Your task to perform on an android device: Search for panasonic triple a on bestbuy.com, select the first entry, add it to the cart, then select checkout. Image 0: 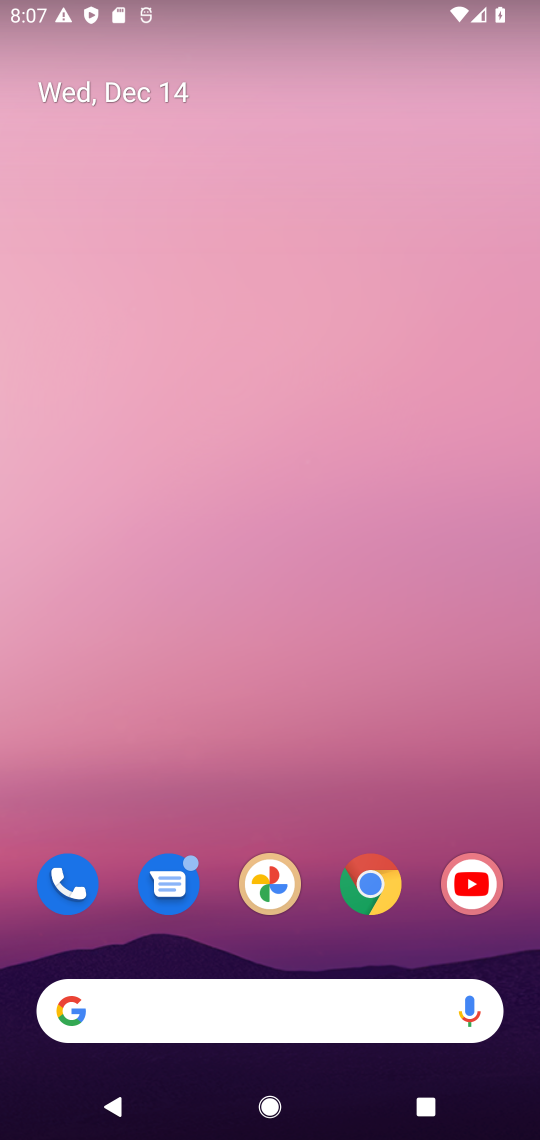
Step 0: click (363, 883)
Your task to perform on an android device: Search for panasonic triple a on bestbuy.com, select the first entry, add it to the cart, then select checkout. Image 1: 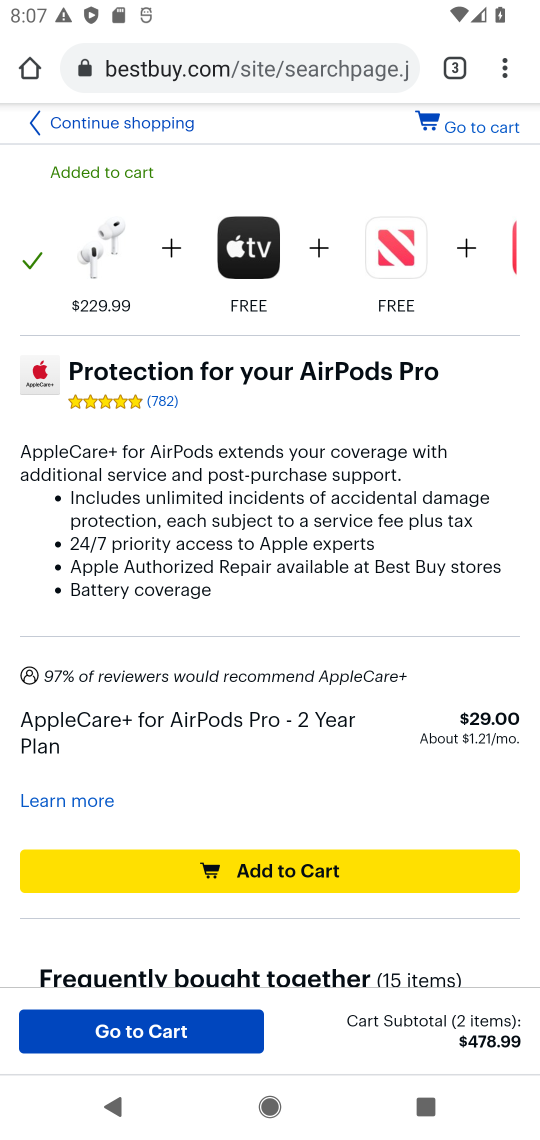
Step 1: click (124, 118)
Your task to perform on an android device: Search for panasonic triple a on bestbuy.com, select the first entry, add it to the cart, then select checkout. Image 2: 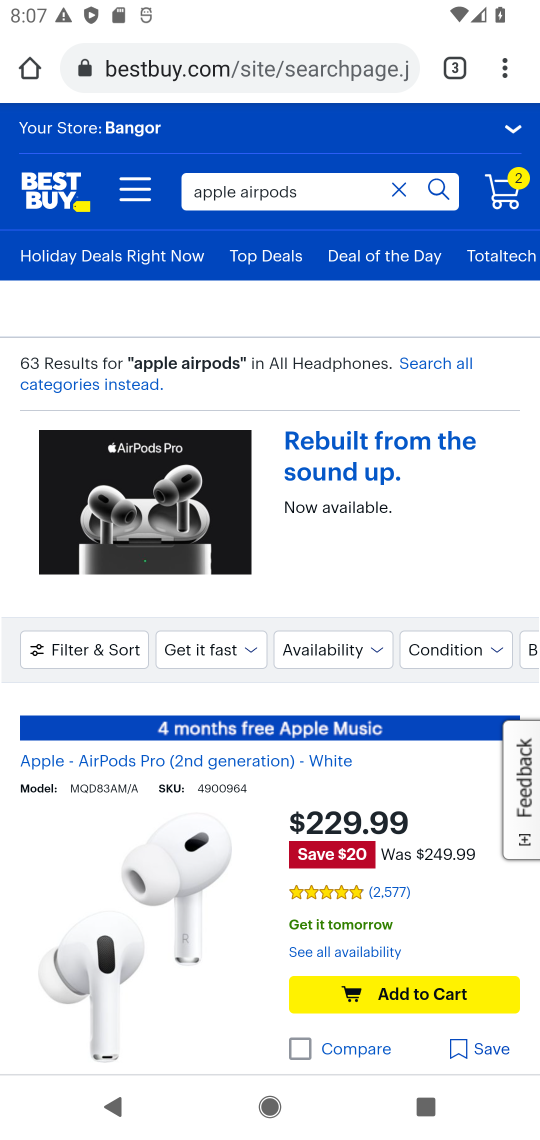
Step 2: click (397, 187)
Your task to perform on an android device: Search for panasonic triple a on bestbuy.com, select the first entry, add it to the cart, then select checkout. Image 3: 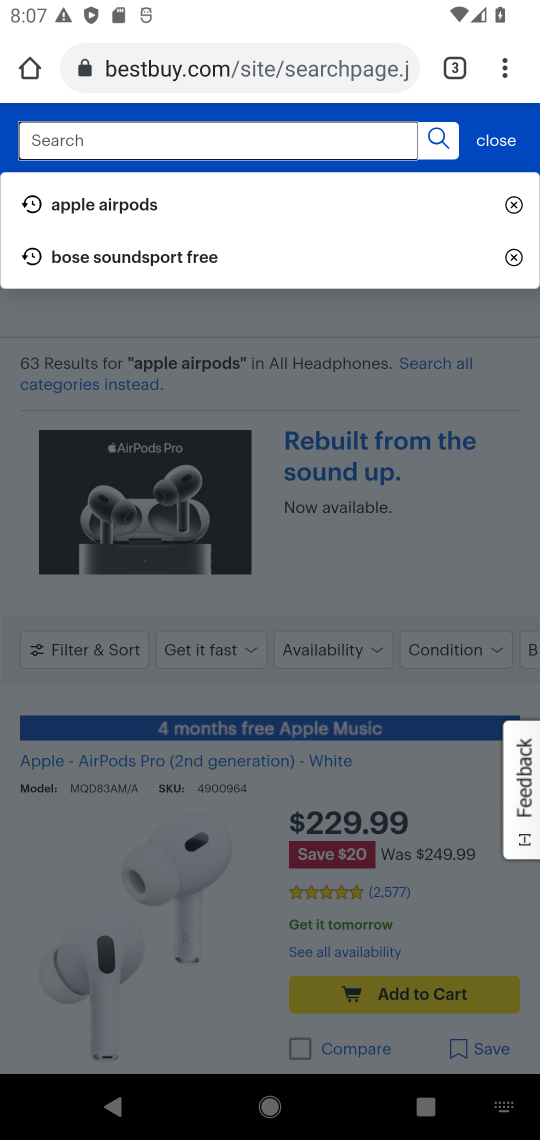
Step 3: type "panasonic triple a"
Your task to perform on an android device: Search for panasonic triple a on bestbuy.com, select the first entry, add it to the cart, then select checkout. Image 4: 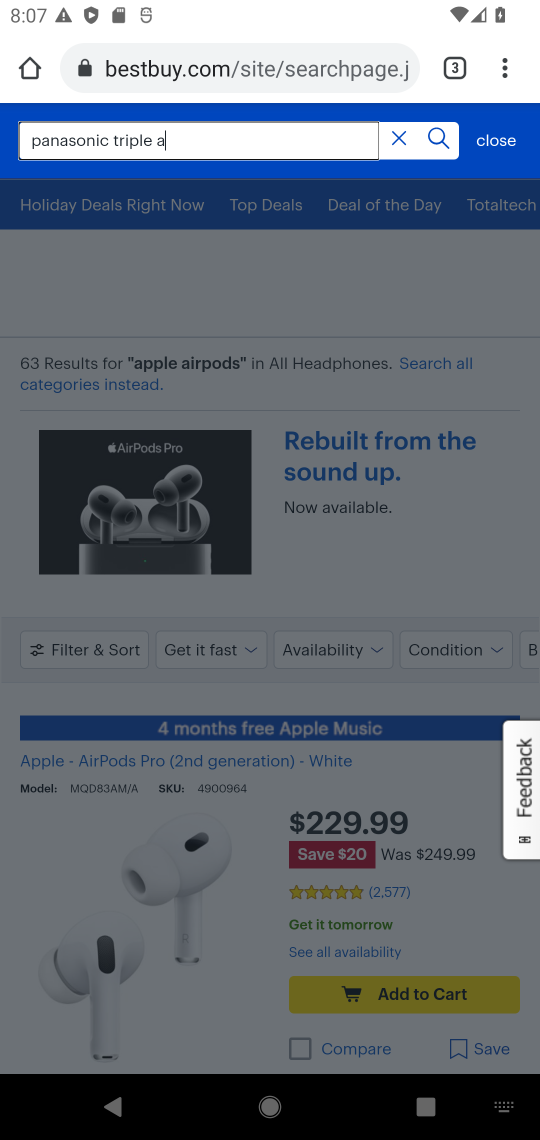
Step 4: click (439, 139)
Your task to perform on an android device: Search for panasonic triple a on bestbuy.com, select the first entry, add it to the cart, then select checkout. Image 5: 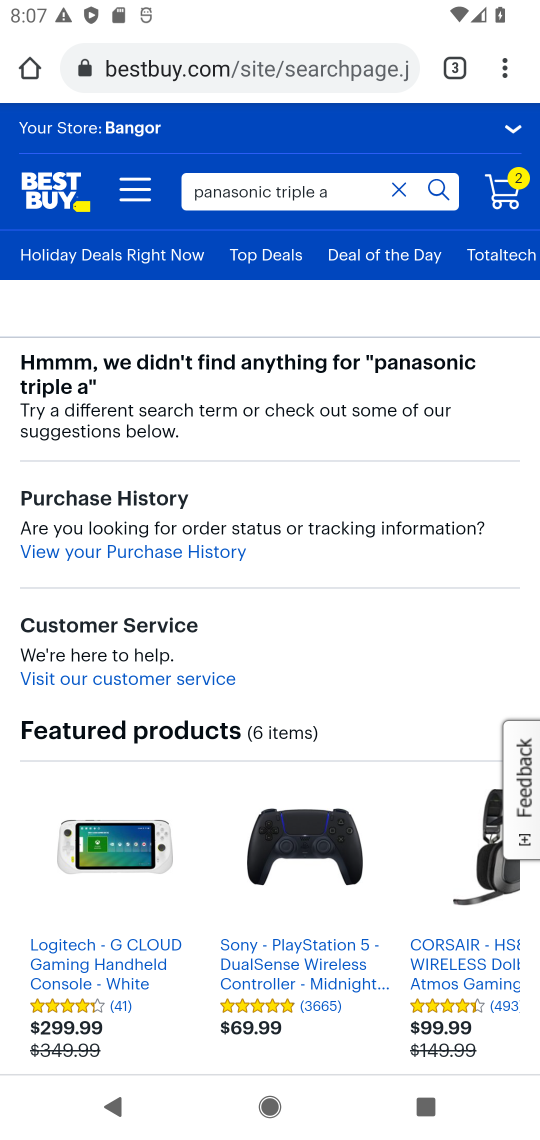
Step 5: task complete